Your task to perform on an android device: Open display settings Image 0: 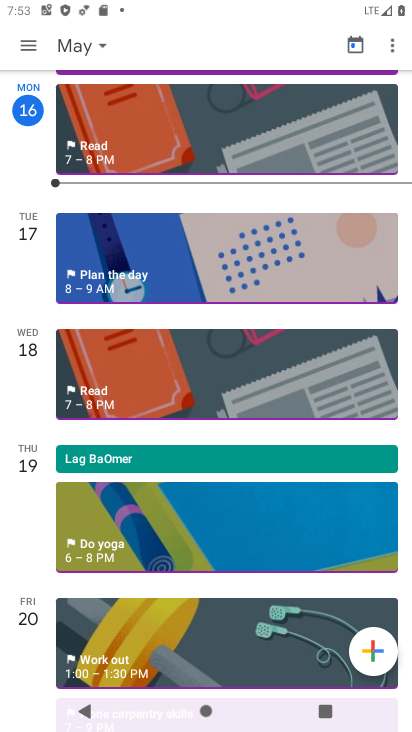
Step 0: press back button
Your task to perform on an android device: Open display settings Image 1: 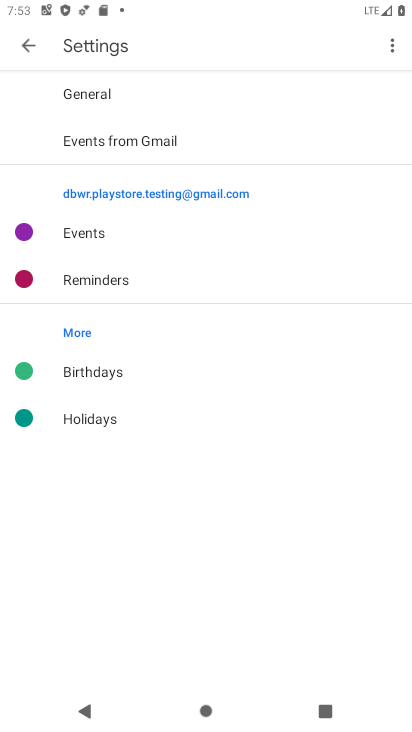
Step 1: press back button
Your task to perform on an android device: Open display settings Image 2: 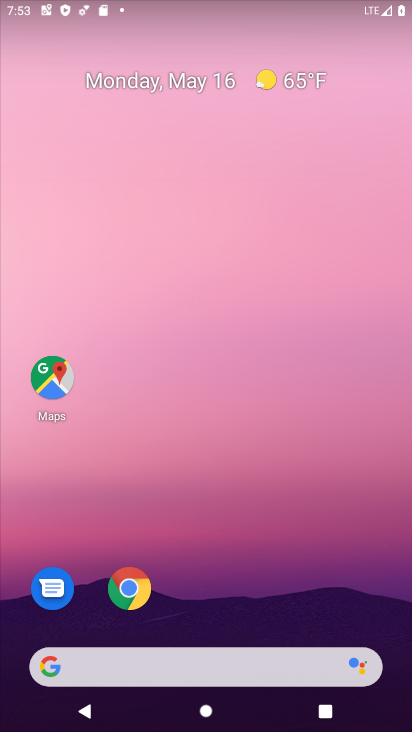
Step 2: drag from (219, 555) to (191, 9)
Your task to perform on an android device: Open display settings Image 3: 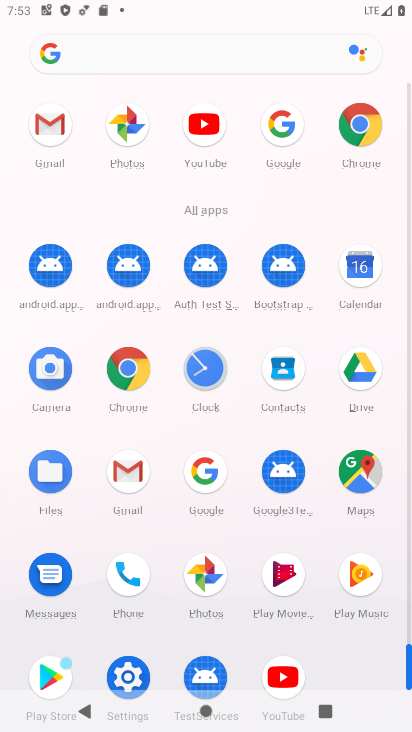
Step 3: drag from (15, 560) to (29, 254)
Your task to perform on an android device: Open display settings Image 4: 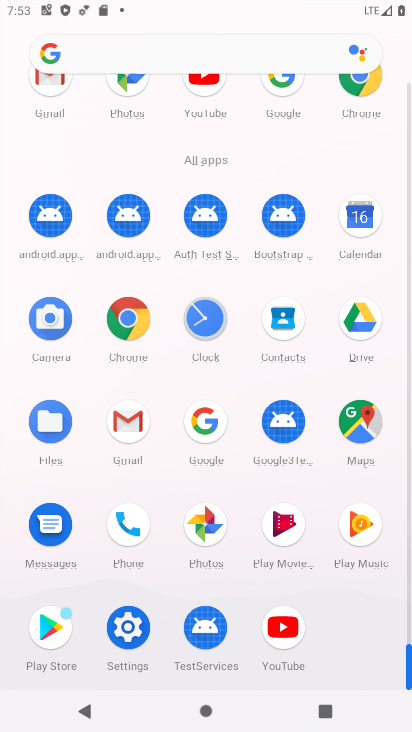
Step 4: click (125, 625)
Your task to perform on an android device: Open display settings Image 5: 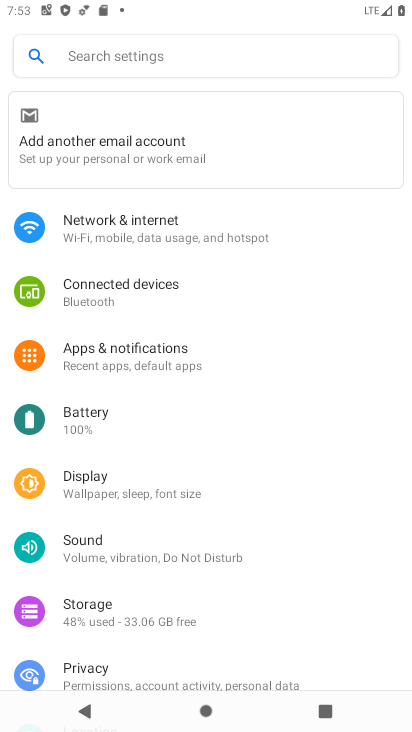
Step 5: drag from (230, 494) to (261, 142)
Your task to perform on an android device: Open display settings Image 6: 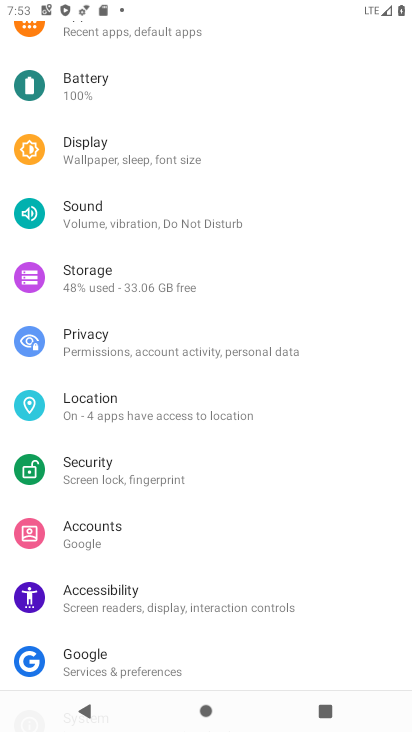
Step 6: click (141, 157)
Your task to perform on an android device: Open display settings Image 7: 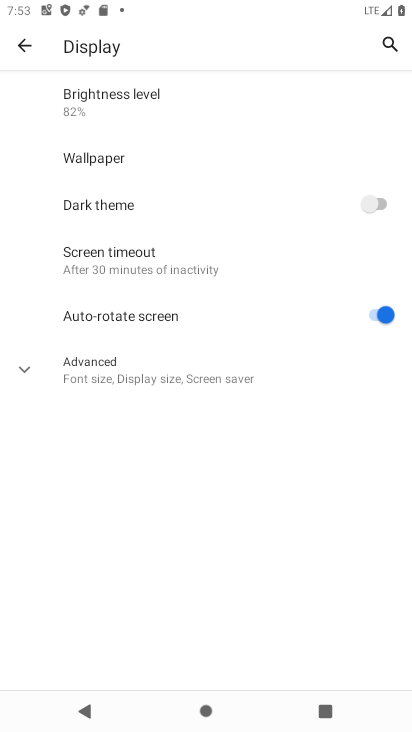
Step 7: click (34, 372)
Your task to perform on an android device: Open display settings Image 8: 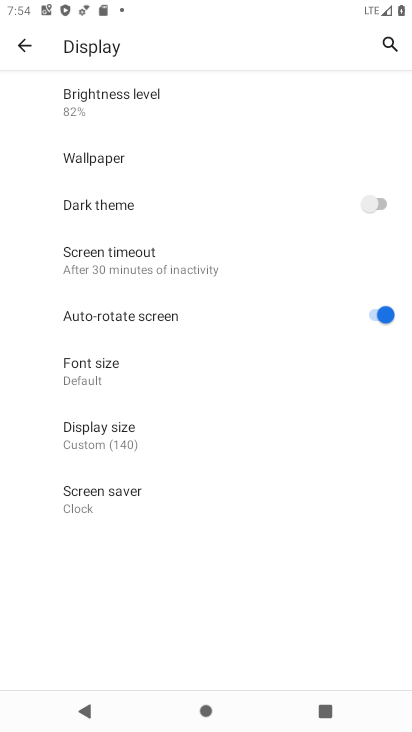
Step 8: task complete